Your task to perform on an android device: Search for Mexican restaurants on Maps Image 0: 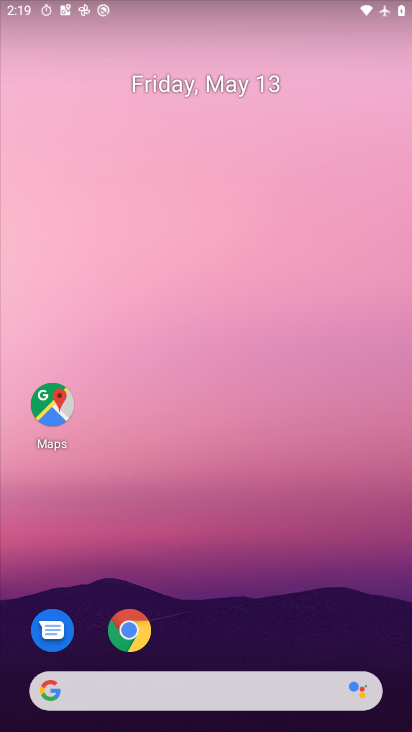
Step 0: drag from (259, 613) to (252, 119)
Your task to perform on an android device: Search for Mexican restaurants on Maps Image 1: 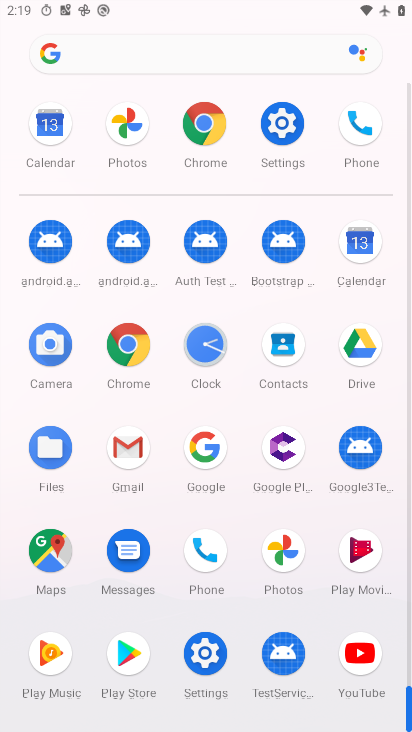
Step 1: click (59, 571)
Your task to perform on an android device: Search for Mexican restaurants on Maps Image 2: 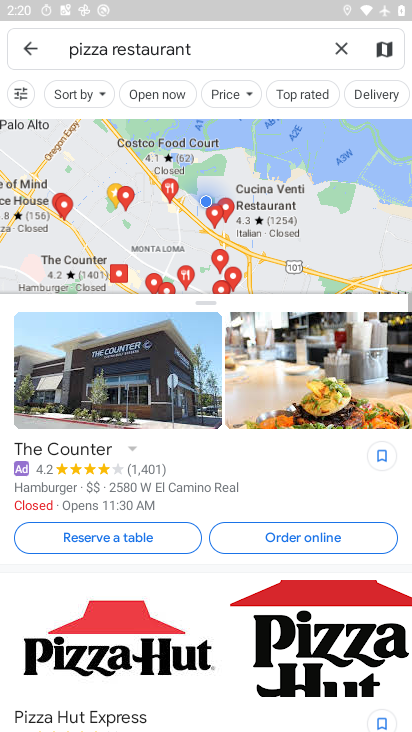
Step 2: click (329, 48)
Your task to perform on an android device: Search for Mexican restaurants on Maps Image 3: 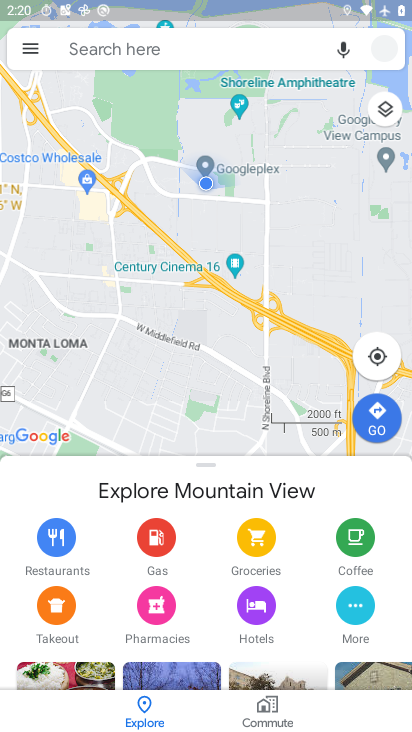
Step 3: click (211, 58)
Your task to perform on an android device: Search for Mexican restaurants on Maps Image 4: 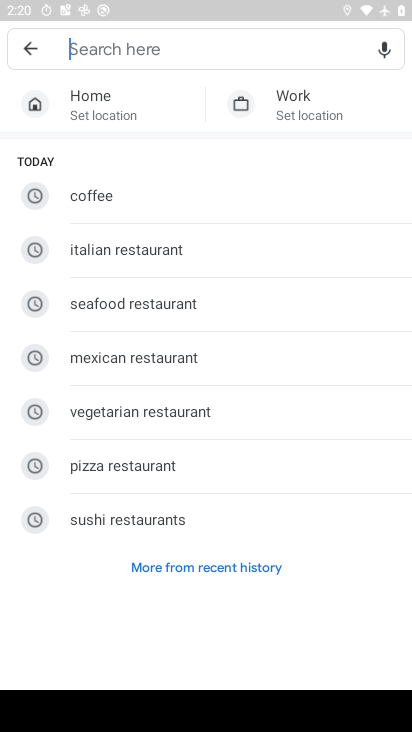
Step 4: click (174, 364)
Your task to perform on an android device: Search for Mexican restaurants on Maps Image 5: 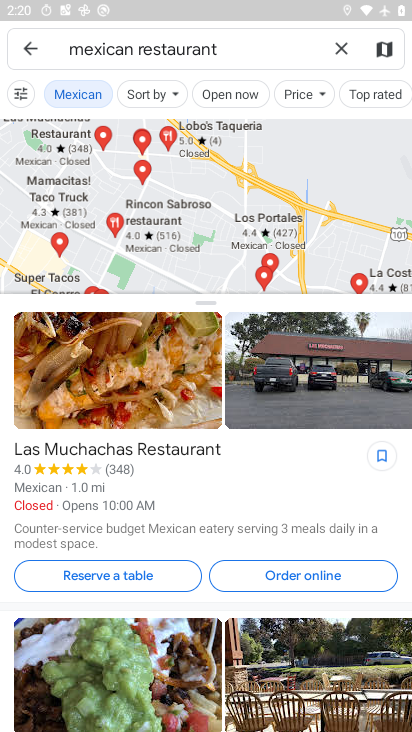
Step 5: task complete